Your task to perform on an android device: empty trash in the gmail app Image 0: 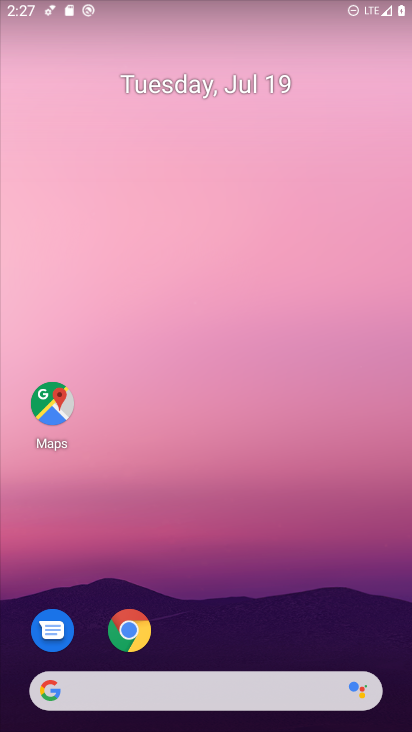
Step 0: drag from (374, 617) to (375, 142)
Your task to perform on an android device: empty trash in the gmail app Image 1: 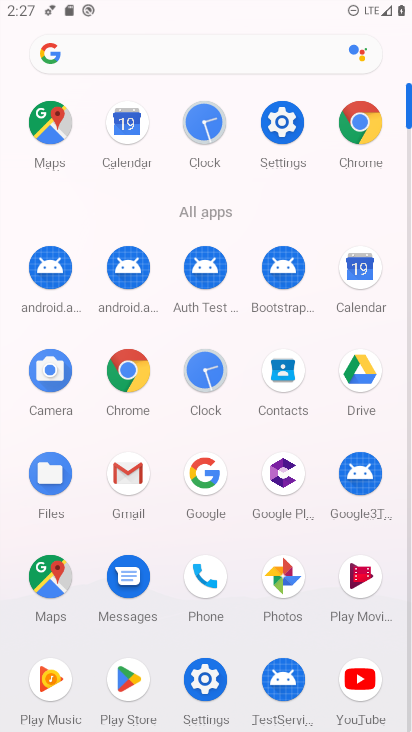
Step 1: click (127, 470)
Your task to perform on an android device: empty trash in the gmail app Image 2: 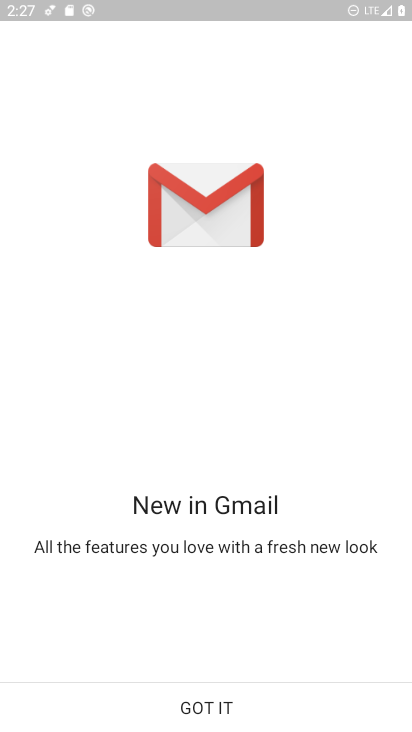
Step 2: click (201, 715)
Your task to perform on an android device: empty trash in the gmail app Image 3: 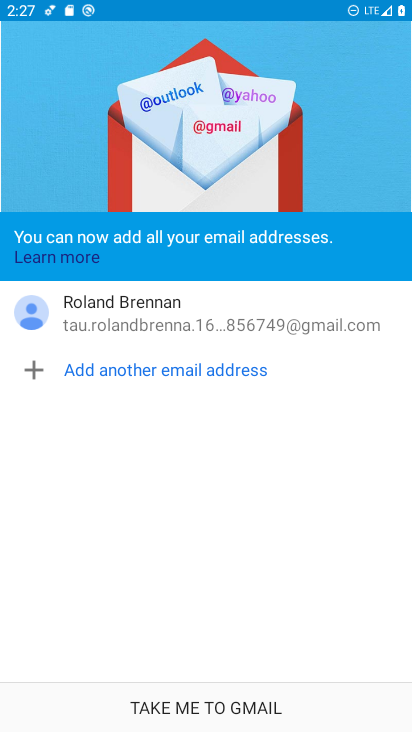
Step 3: click (201, 703)
Your task to perform on an android device: empty trash in the gmail app Image 4: 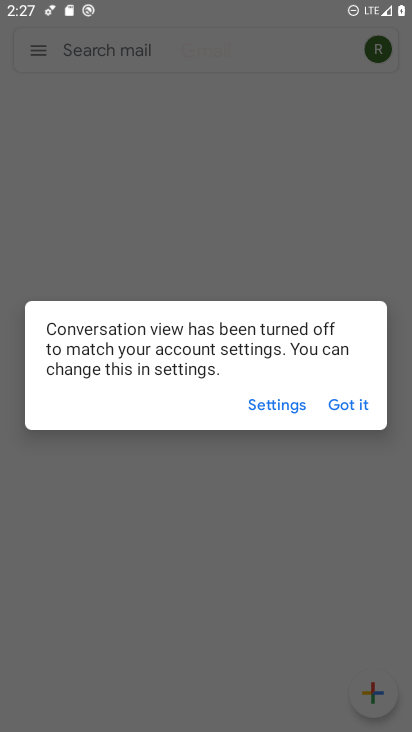
Step 4: click (350, 414)
Your task to perform on an android device: empty trash in the gmail app Image 5: 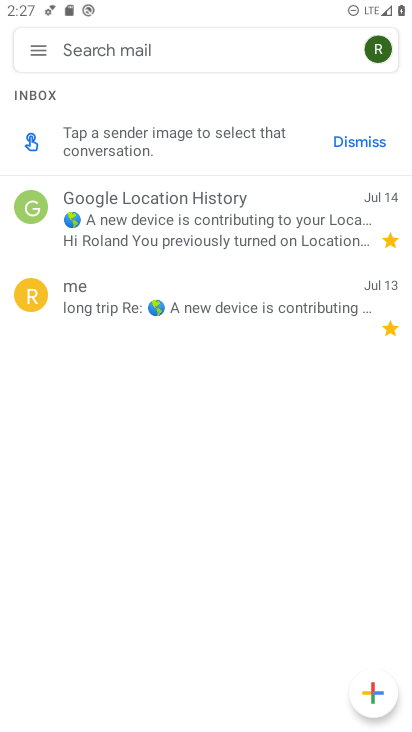
Step 5: click (35, 46)
Your task to perform on an android device: empty trash in the gmail app Image 6: 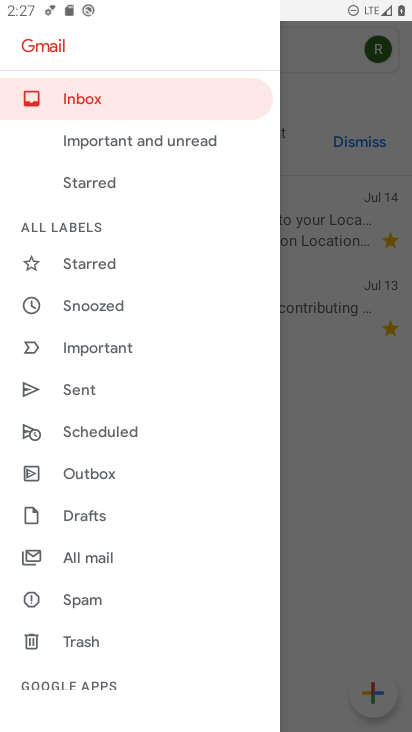
Step 6: click (75, 636)
Your task to perform on an android device: empty trash in the gmail app Image 7: 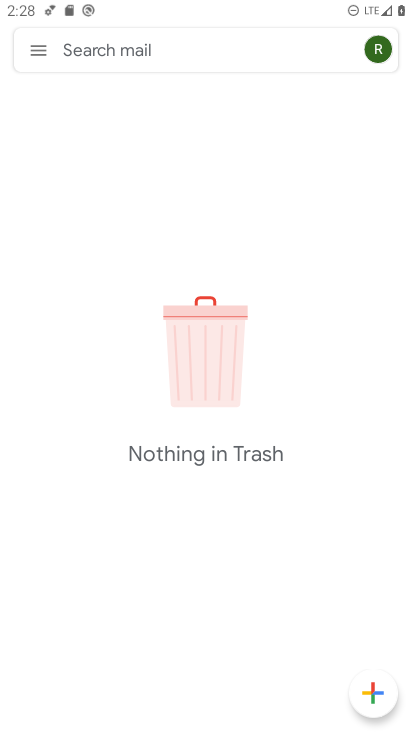
Step 7: task complete